Your task to perform on an android device: Open the phone app and click the voicemail tab. Image 0: 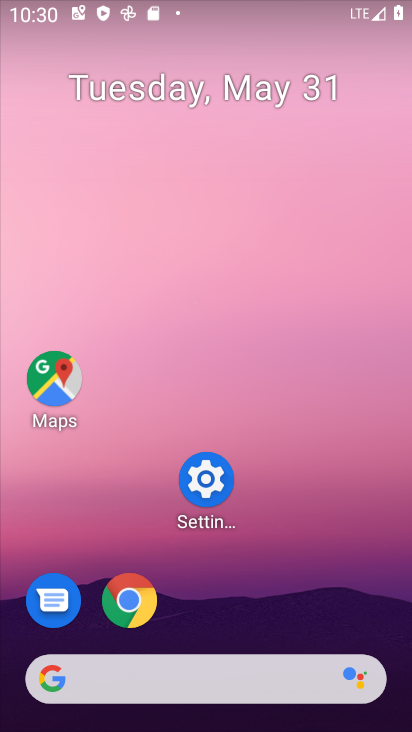
Step 0: press home button
Your task to perform on an android device: Open the phone app and click the voicemail tab. Image 1: 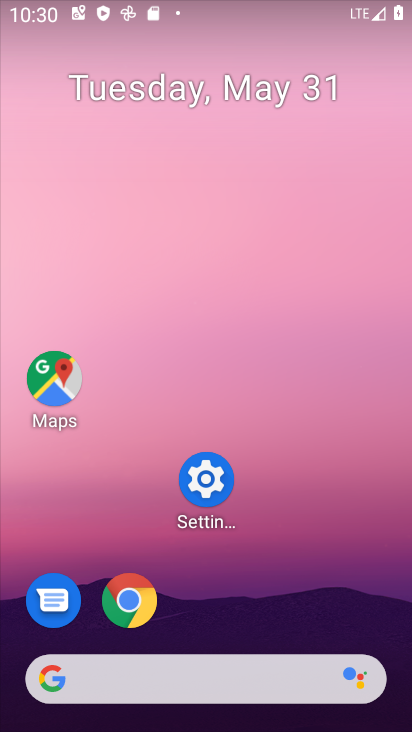
Step 1: drag from (230, 707) to (265, 232)
Your task to perform on an android device: Open the phone app and click the voicemail tab. Image 2: 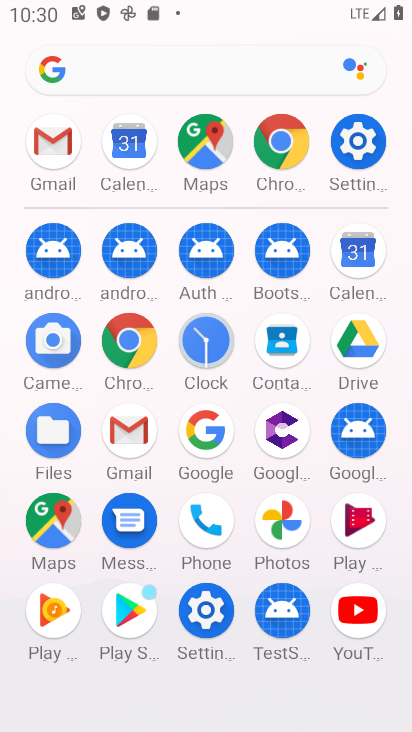
Step 2: click (211, 550)
Your task to perform on an android device: Open the phone app and click the voicemail tab. Image 3: 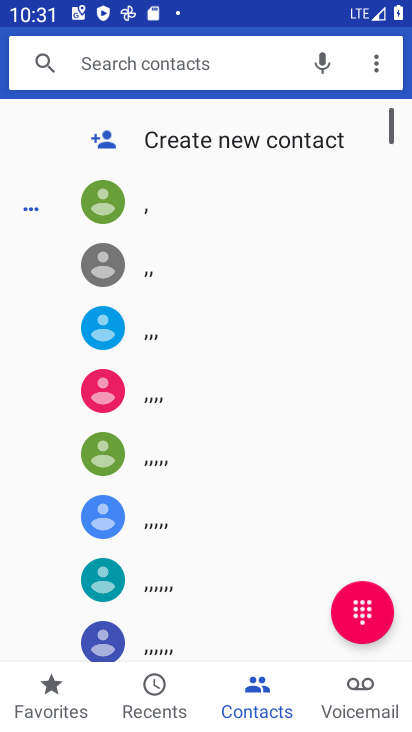
Step 3: click (360, 694)
Your task to perform on an android device: Open the phone app and click the voicemail tab. Image 4: 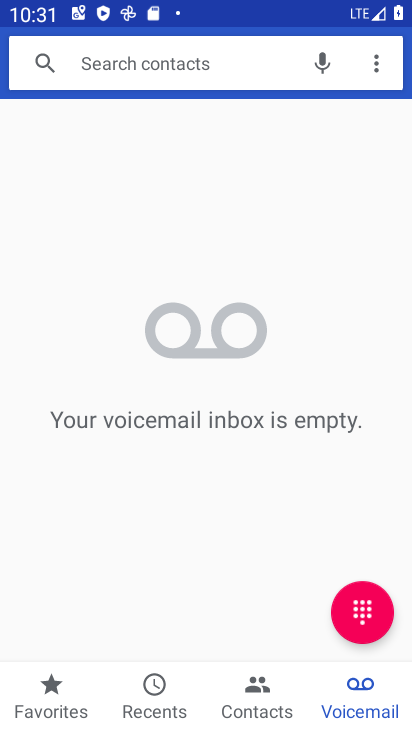
Step 4: task complete